Your task to perform on an android device: Open notification settings Image 0: 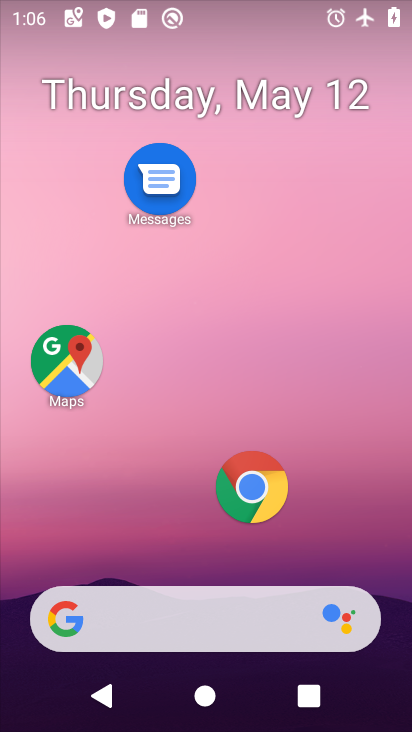
Step 0: drag from (177, 544) to (247, 169)
Your task to perform on an android device: Open notification settings Image 1: 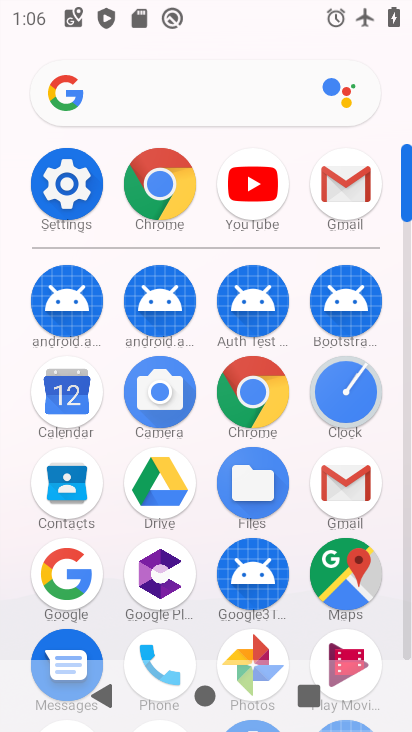
Step 1: click (85, 186)
Your task to perform on an android device: Open notification settings Image 2: 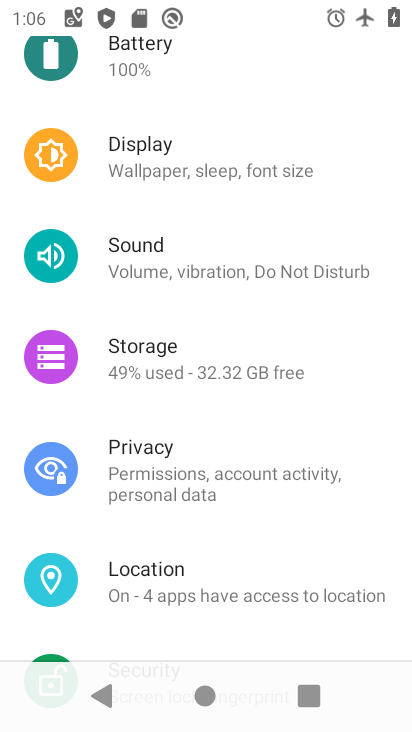
Step 2: drag from (246, 206) to (252, 454)
Your task to perform on an android device: Open notification settings Image 3: 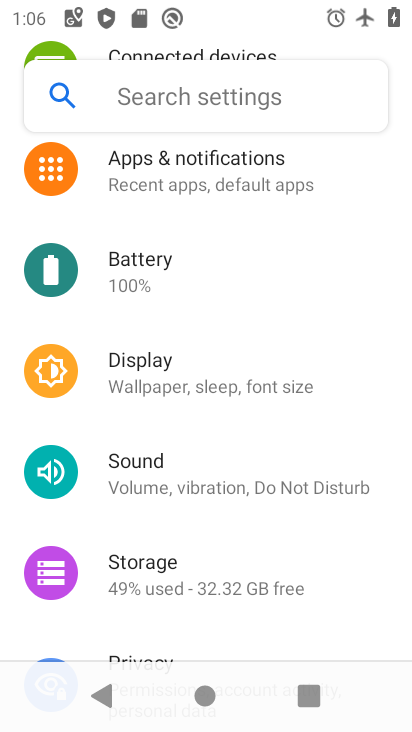
Step 3: click (266, 180)
Your task to perform on an android device: Open notification settings Image 4: 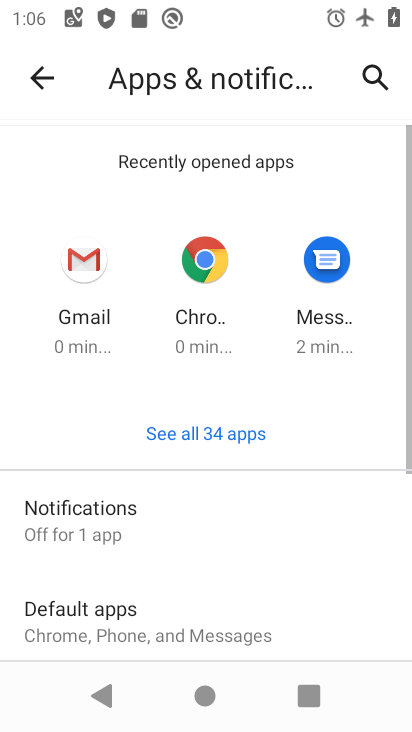
Step 4: click (186, 532)
Your task to perform on an android device: Open notification settings Image 5: 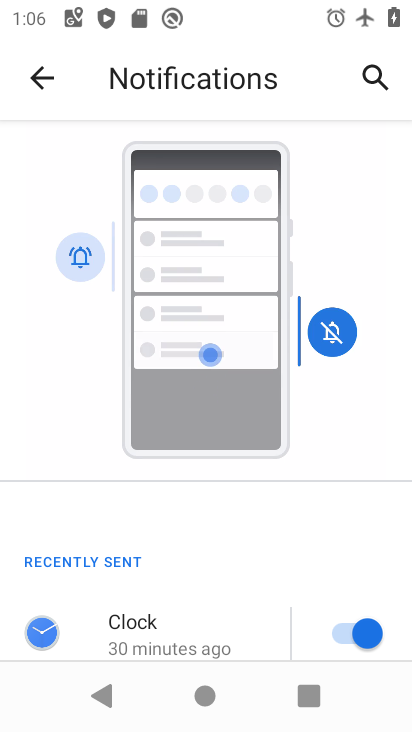
Step 5: drag from (227, 601) to (231, 315)
Your task to perform on an android device: Open notification settings Image 6: 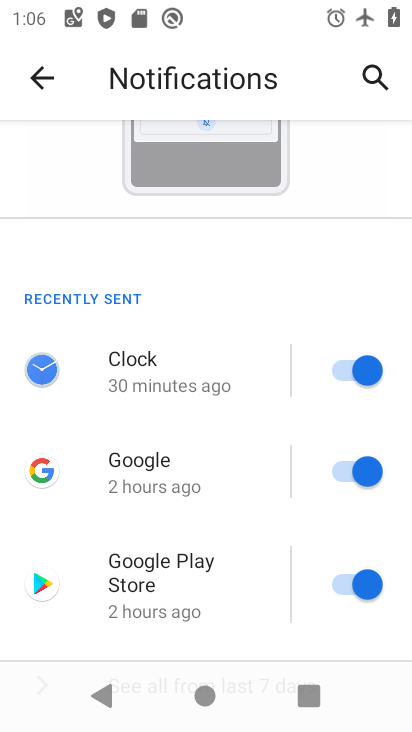
Step 6: drag from (223, 511) to (224, 351)
Your task to perform on an android device: Open notification settings Image 7: 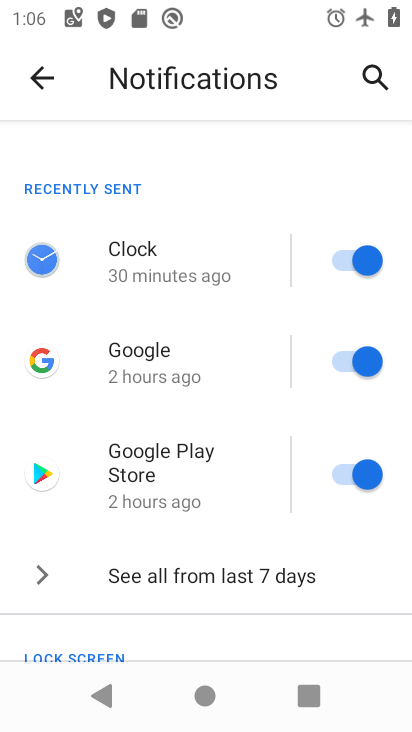
Step 7: drag from (223, 614) to (209, 391)
Your task to perform on an android device: Open notification settings Image 8: 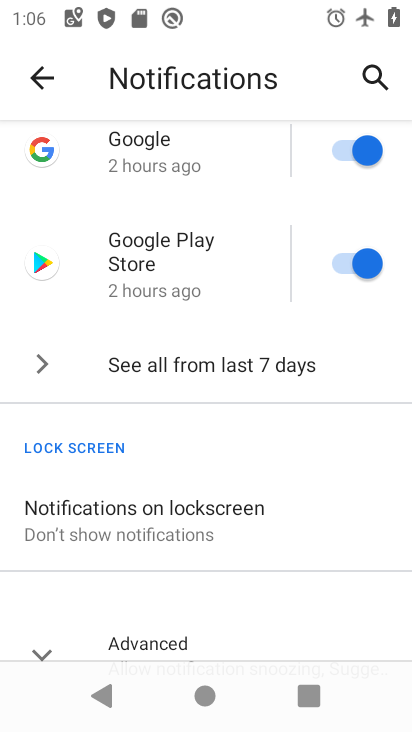
Step 8: drag from (220, 544) to (220, 331)
Your task to perform on an android device: Open notification settings Image 9: 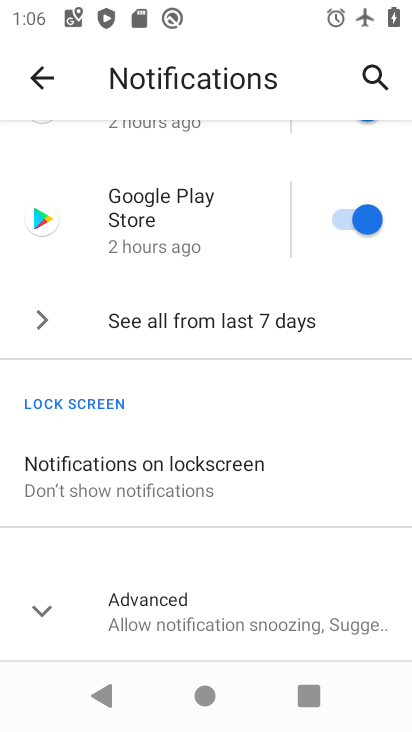
Step 9: click (210, 594)
Your task to perform on an android device: Open notification settings Image 10: 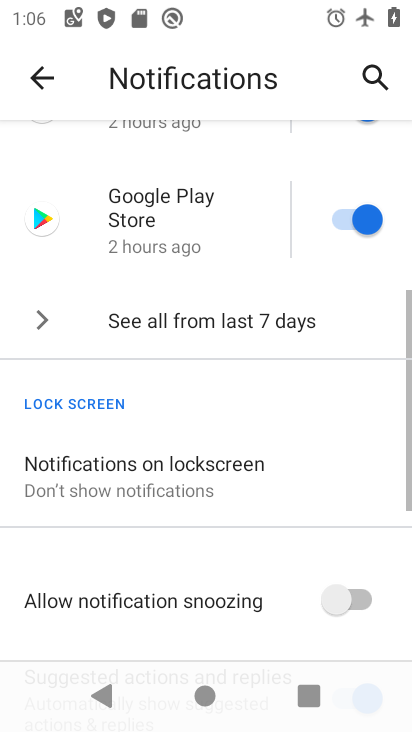
Step 10: task complete